Your task to perform on an android device: move a message to another label in the gmail app Image 0: 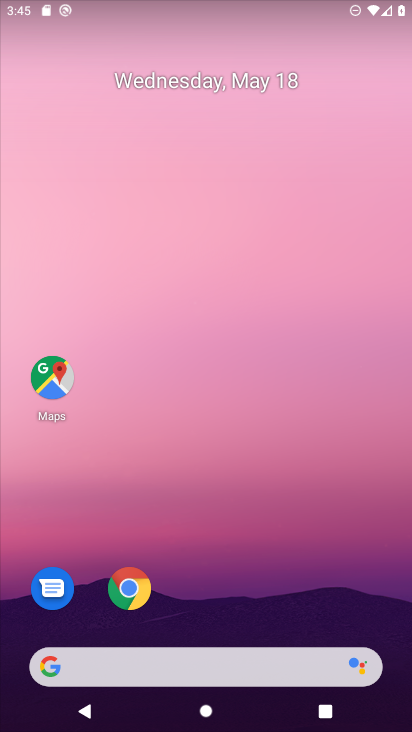
Step 0: drag from (265, 585) to (251, 224)
Your task to perform on an android device: move a message to another label in the gmail app Image 1: 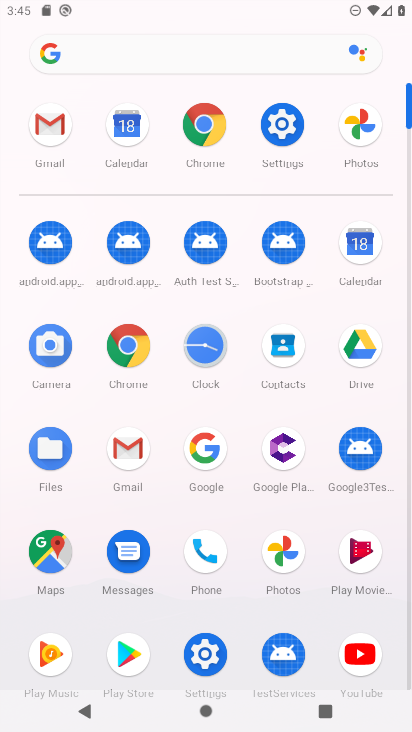
Step 1: click (50, 130)
Your task to perform on an android device: move a message to another label in the gmail app Image 2: 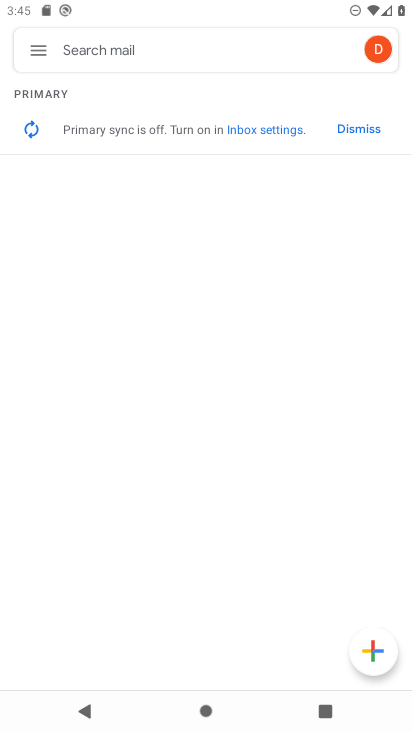
Step 2: click (27, 50)
Your task to perform on an android device: move a message to another label in the gmail app Image 3: 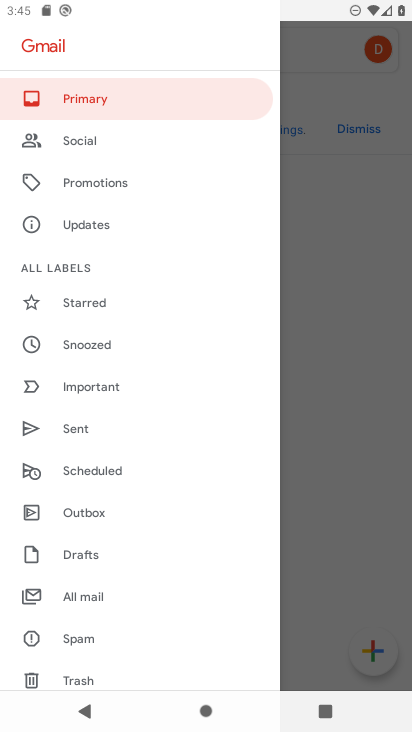
Step 3: click (69, 605)
Your task to perform on an android device: move a message to another label in the gmail app Image 4: 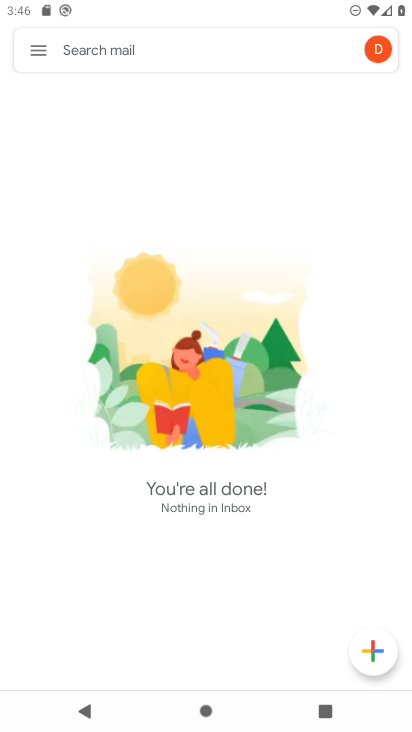
Step 4: task complete